Your task to perform on an android device: check storage Image 0: 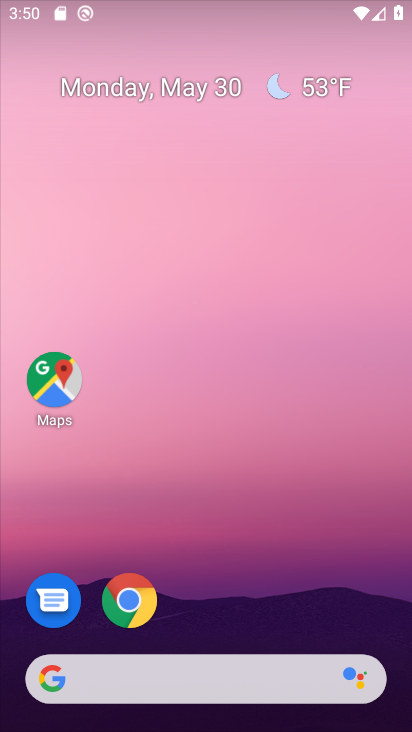
Step 0: drag from (340, 338) to (394, 52)
Your task to perform on an android device: check storage Image 1: 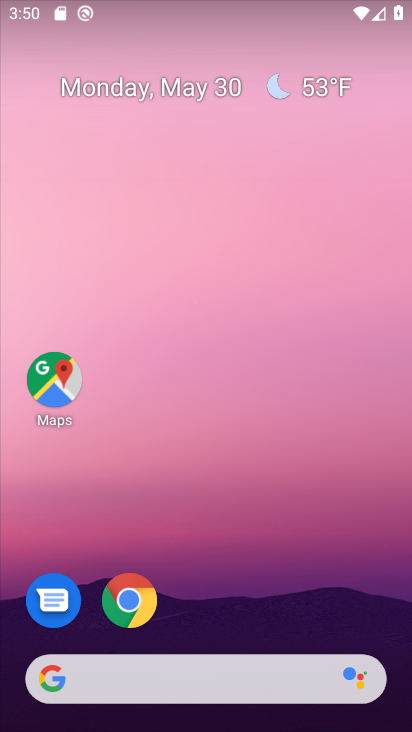
Step 1: drag from (244, 479) to (359, 23)
Your task to perform on an android device: check storage Image 2: 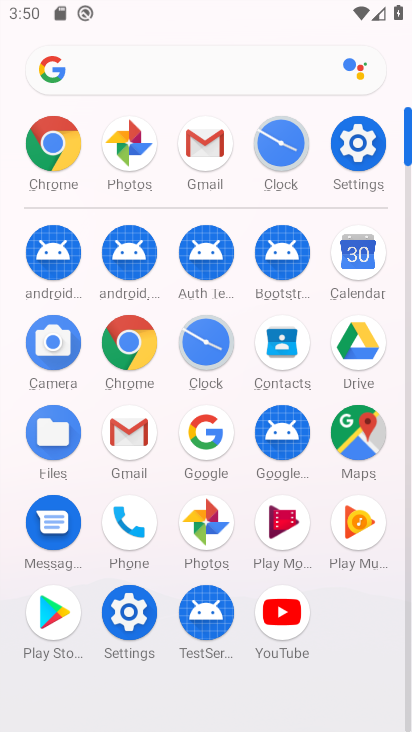
Step 2: click (357, 152)
Your task to perform on an android device: check storage Image 3: 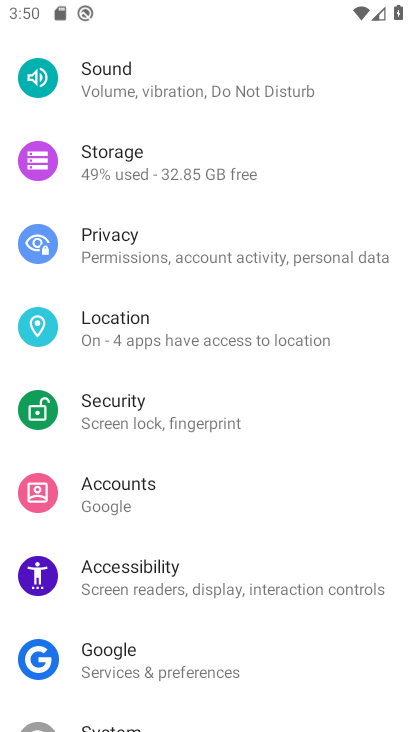
Step 3: click (167, 171)
Your task to perform on an android device: check storage Image 4: 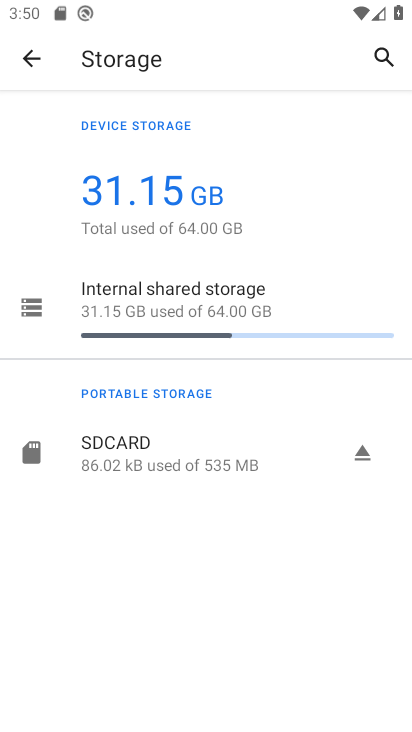
Step 4: click (161, 304)
Your task to perform on an android device: check storage Image 5: 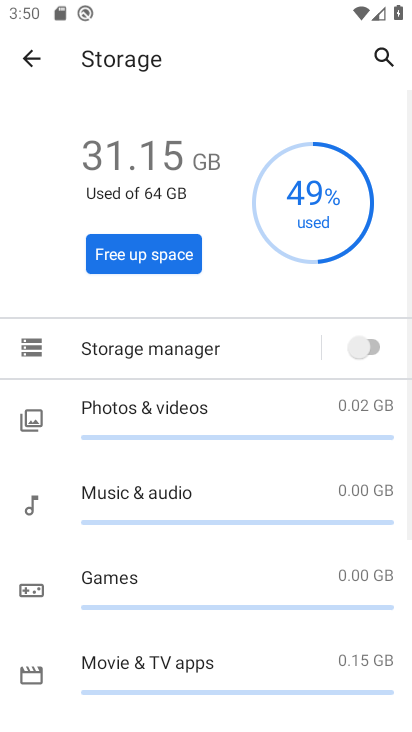
Step 5: task complete